Your task to perform on an android device: toggle priority inbox in the gmail app Image 0: 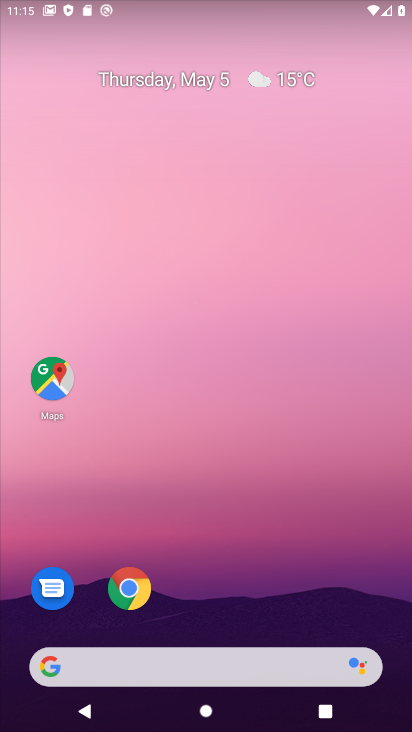
Step 0: drag from (273, 561) to (278, 42)
Your task to perform on an android device: toggle priority inbox in the gmail app Image 1: 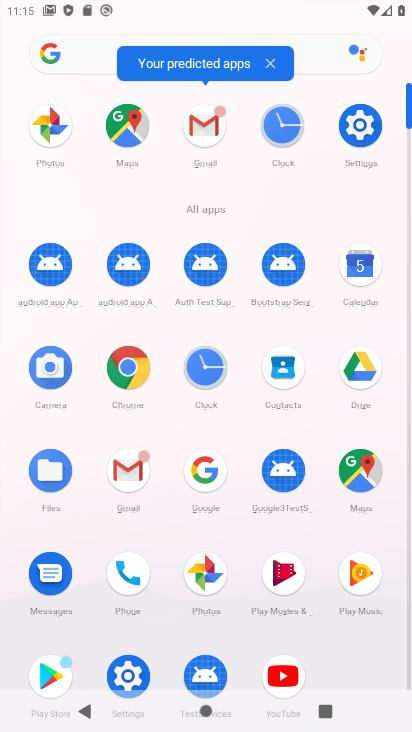
Step 1: click (203, 122)
Your task to perform on an android device: toggle priority inbox in the gmail app Image 2: 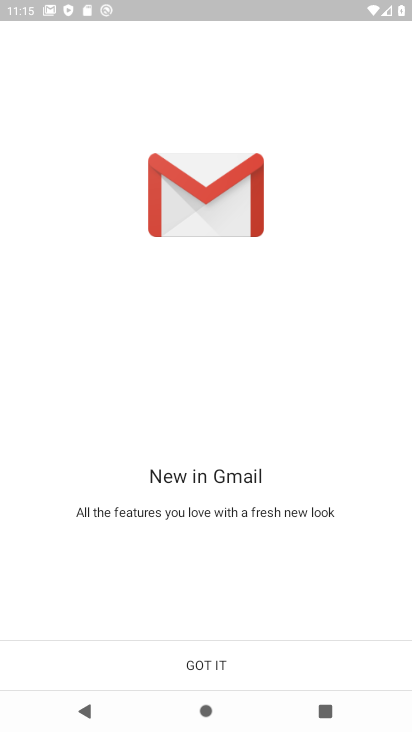
Step 2: click (283, 673)
Your task to perform on an android device: toggle priority inbox in the gmail app Image 3: 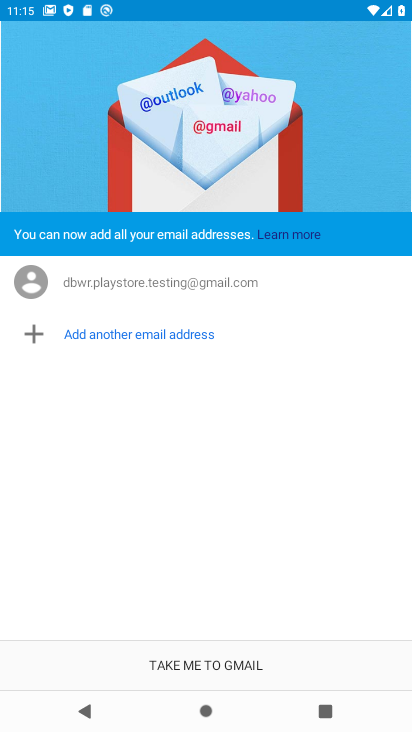
Step 3: click (291, 666)
Your task to perform on an android device: toggle priority inbox in the gmail app Image 4: 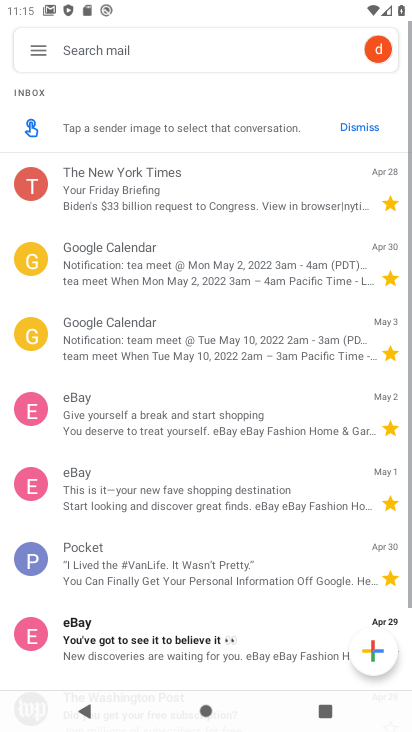
Step 4: click (37, 42)
Your task to perform on an android device: toggle priority inbox in the gmail app Image 5: 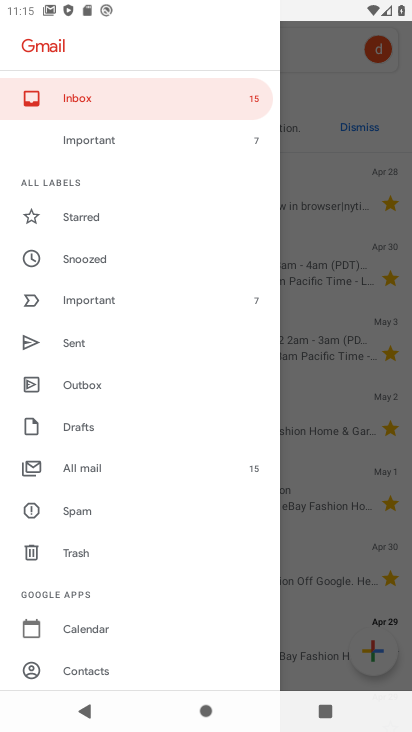
Step 5: drag from (137, 567) to (146, 323)
Your task to perform on an android device: toggle priority inbox in the gmail app Image 6: 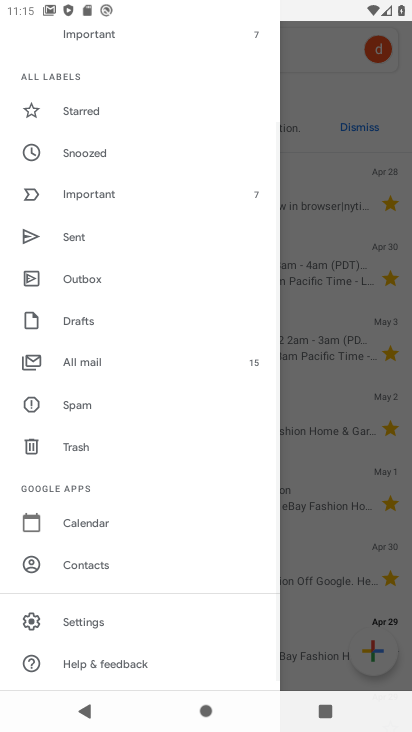
Step 6: click (98, 620)
Your task to perform on an android device: toggle priority inbox in the gmail app Image 7: 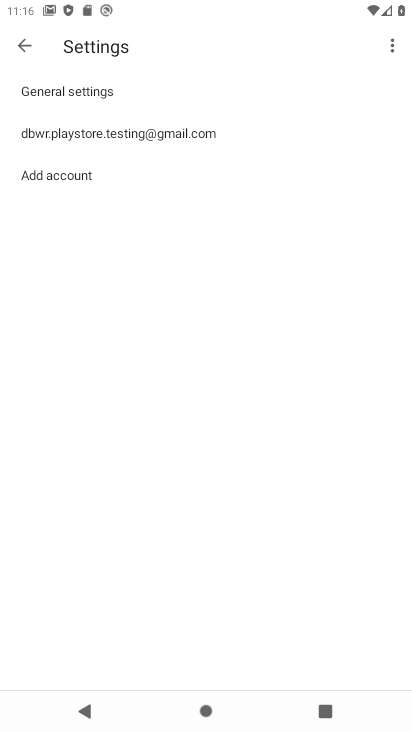
Step 7: click (188, 129)
Your task to perform on an android device: toggle priority inbox in the gmail app Image 8: 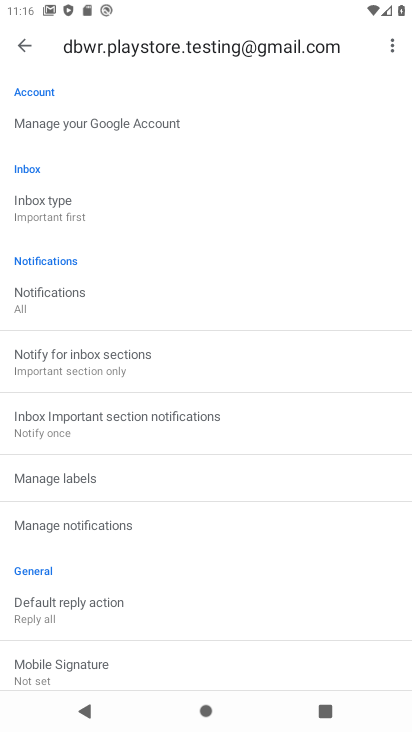
Step 8: click (65, 204)
Your task to perform on an android device: toggle priority inbox in the gmail app Image 9: 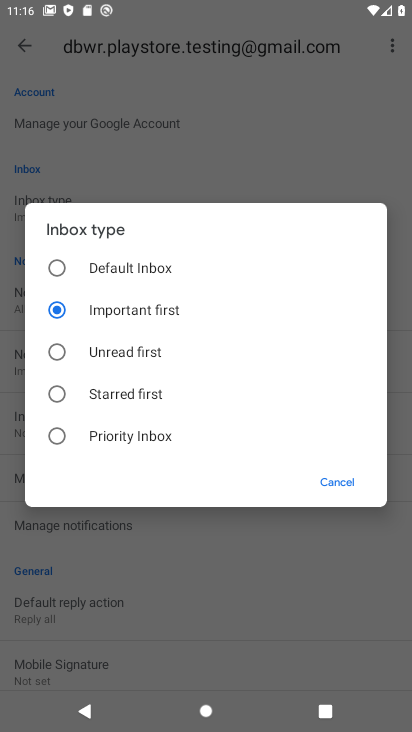
Step 9: click (53, 435)
Your task to perform on an android device: toggle priority inbox in the gmail app Image 10: 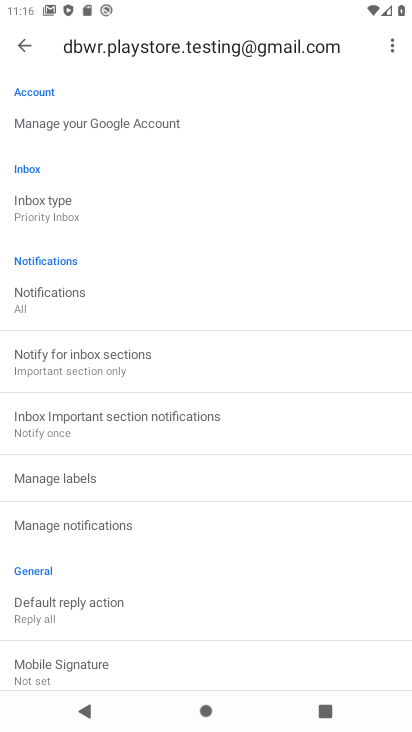
Step 10: task complete